Your task to perform on an android device: Open CNN.com Image 0: 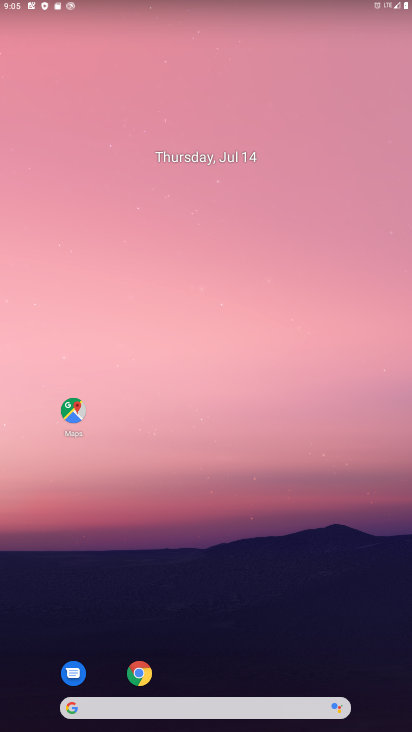
Step 0: click (139, 674)
Your task to perform on an android device: Open CNN.com Image 1: 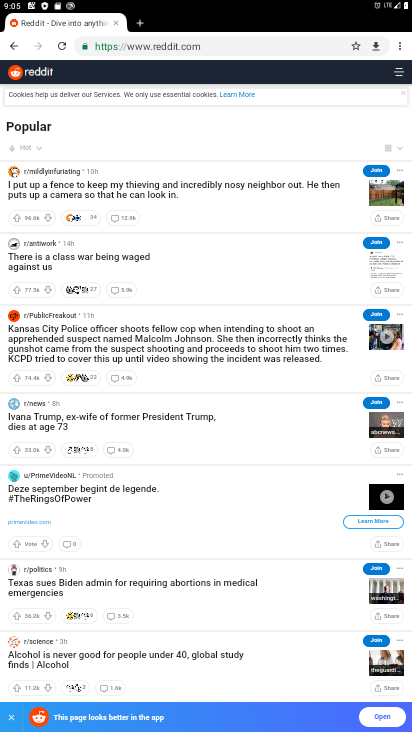
Step 1: click (309, 52)
Your task to perform on an android device: Open CNN.com Image 2: 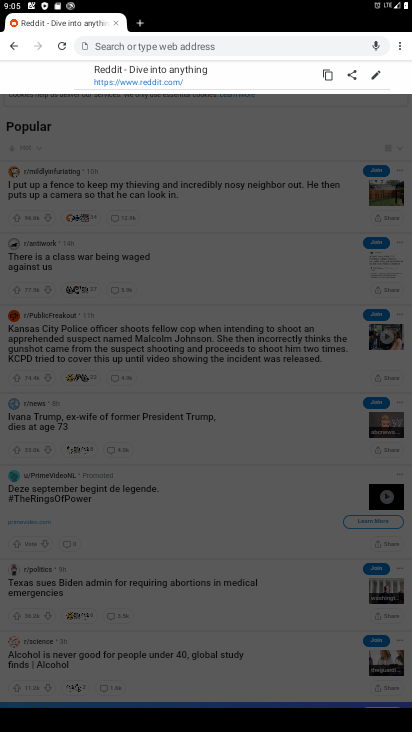
Step 2: type "CNN.com"
Your task to perform on an android device: Open CNN.com Image 3: 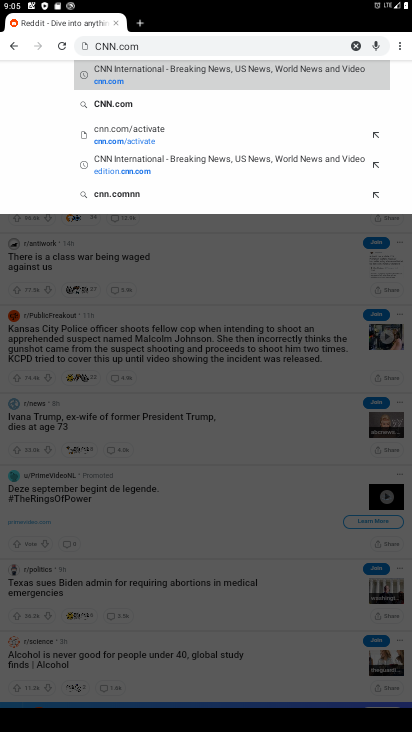
Step 3: click (118, 102)
Your task to perform on an android device: Open CNN.com Image 4: 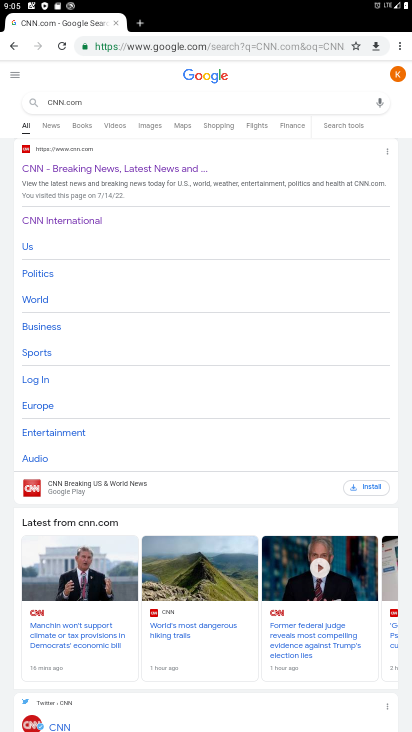
Step 4: click (103, 174)
Your task to perform on an android device: Open CNN.com Image 5: 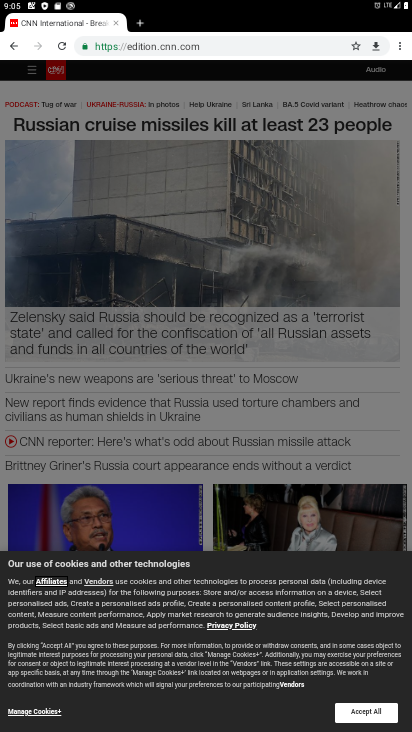
Step 5: task complete